Your task to perform on an android device: snooze an email in the gmail app Image 0: 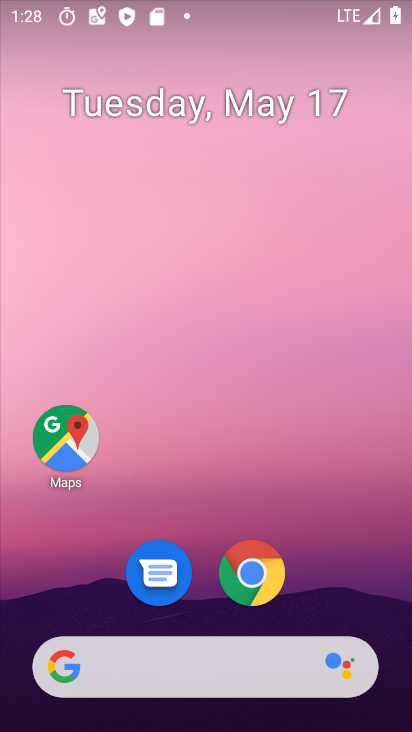
Step 0: drag from (191, 650) to (242, 154)
Your task to perform on an android device: snooze an email in the gmail app Image 1: 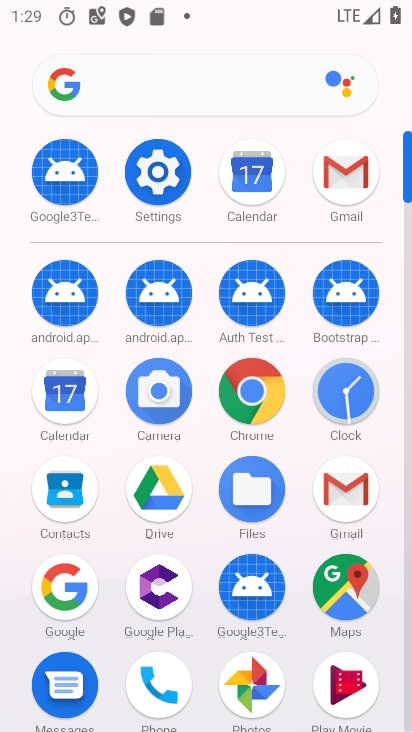
Step 1: click (356, 480)
Your task to perform on an android device: snooze an email in the gmail app Image 2: 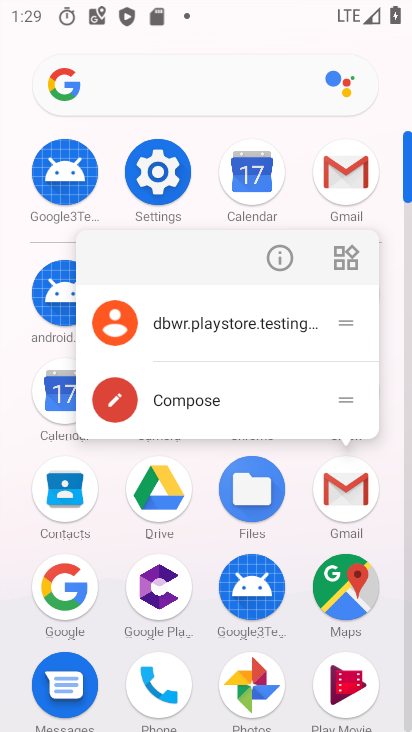
Step 2: click (344, 500)
Your task to perform on an android device: snooze an email in the gmail app Image 3: 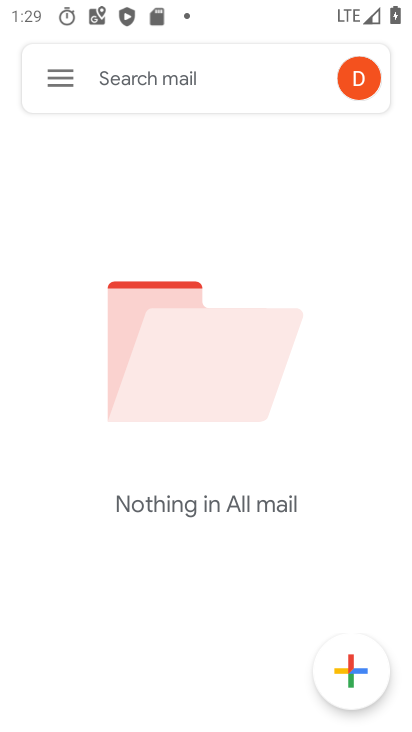
Step 3: click (62, 73)
Your task to perform on an android device: snooze an email in the gmail app Image 4: 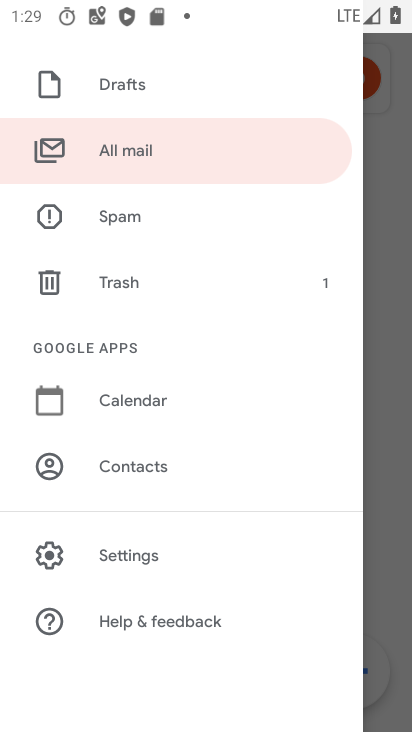
Step 4: drag from (251, 248) to (175, 713)
Your task to perform on an android device: snooze an email in the gmail app Image 5: 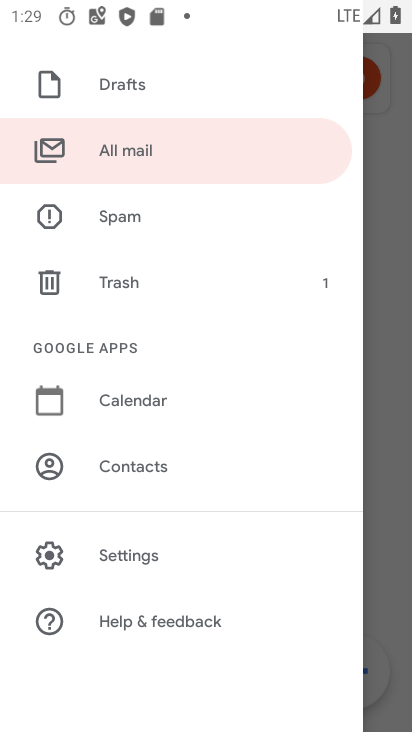
Step 5: drag from (231, 116) to (183, 706)
Your task to perform on an android device: snooze an email in the gmail app Image 6: 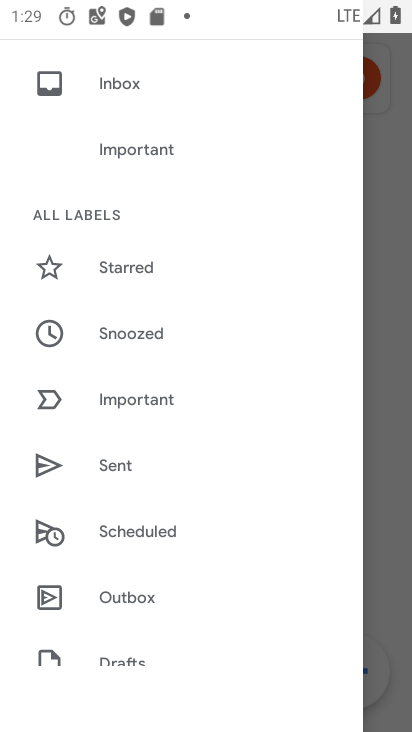
Step 6: click (184, 338)
Your task to perform on an android device: snooze an email in the gmail app Image 7: 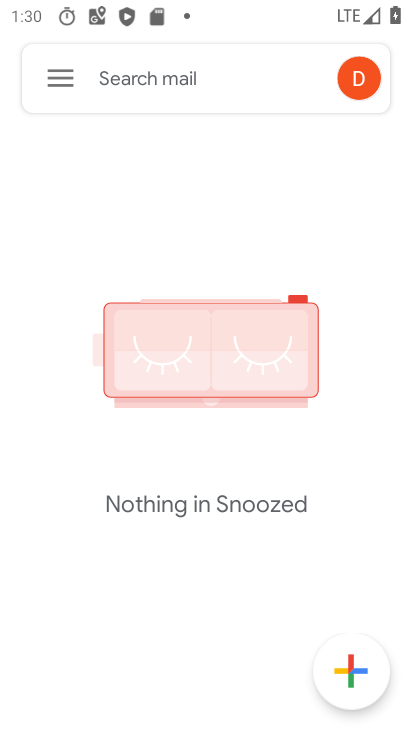
Step 7: click (66, 63)
Your task to perform on an android device: snooze an email in the gmail app Image 8: 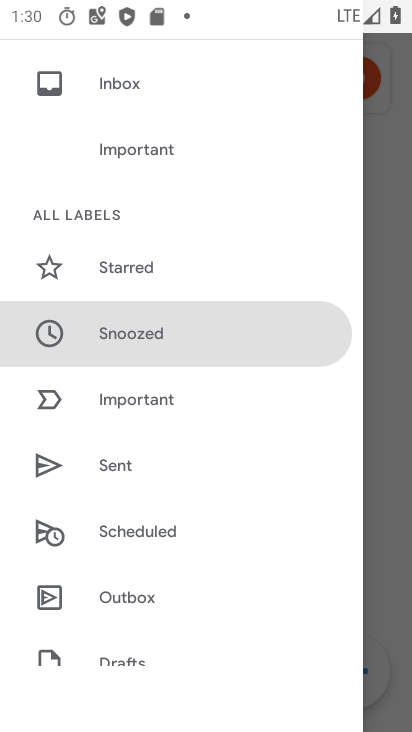
Step 8: drag from (197, 611) to (204, 133)
Your task to perform on an android device: snooze an email in the gmail app Image 9: 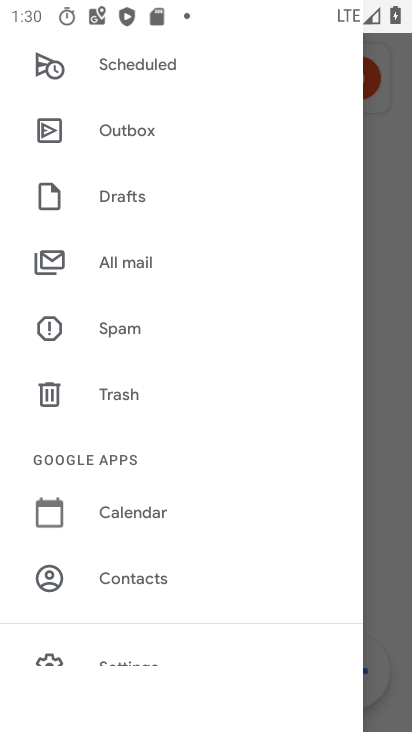
Step 9: click (138, 270)
Your task to perform on an android device: snooze an email in the gmail app Image 10: 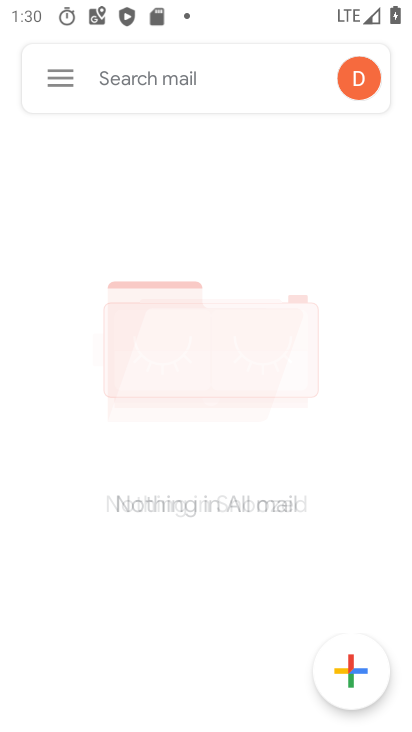
Step 10: task complete